Your task to perform on an android device: Open Youtube and go to the subscriptions tab Image 0: 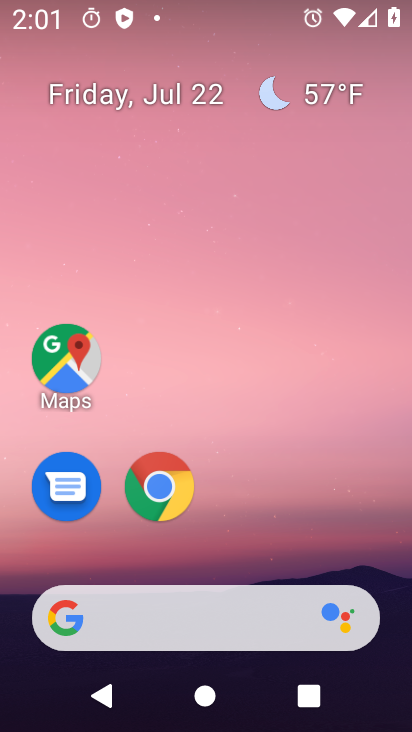
Step 0: drag from (341, 525) to (341, 130)
Your task to perform on an android device: Open Youtube and go to the subscriptions tab Image 1: 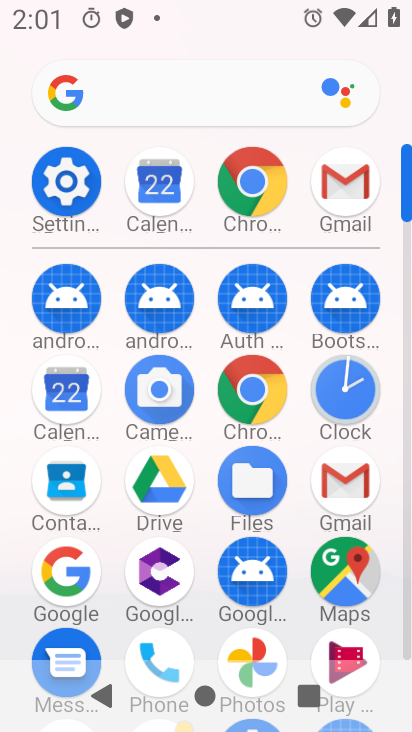
Step 1: drag from (388, 527) to (390, 251)
Your task to perform on an android device: Open Youtube and go to the subscriptions tab Image 2: 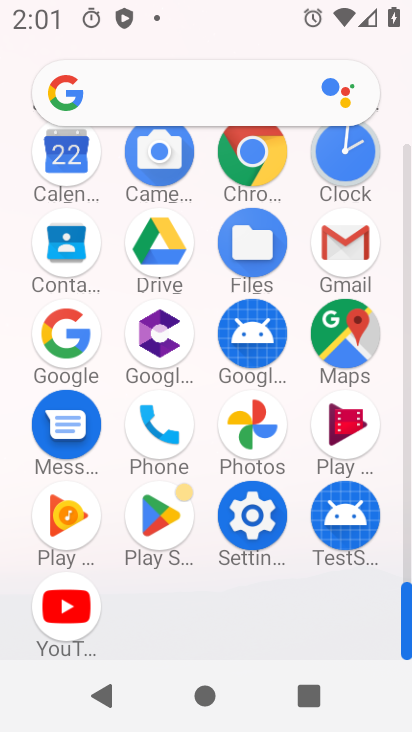
Step 2: click (74, 610)
Your task to perform on an android device: Open Youtube and go to the subscriptions tab Image 3: 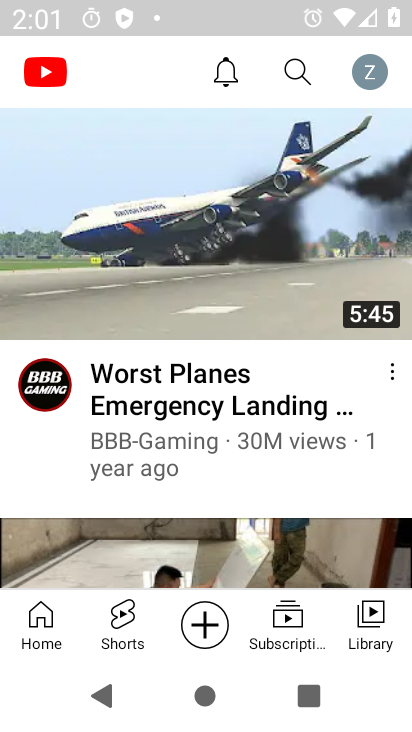
Step 3: click (287, 614)
Your task to perform on an android device: Open Youtube and go to the subscriptions tab Image 4: 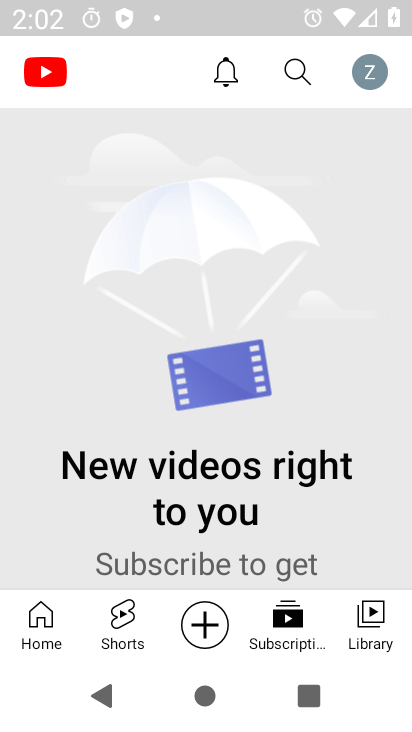
Step 4: task complete